Your task to perform on an android device: change timer sound Image 0: 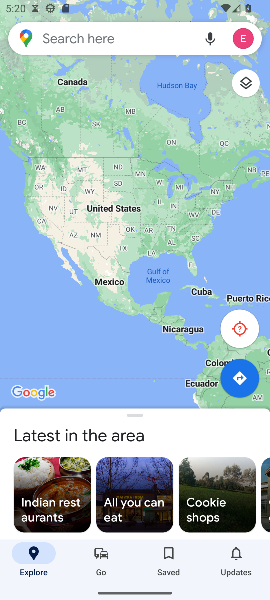
Step 0: press home button
Your task to perform on an android device: change timer sound Image 1: 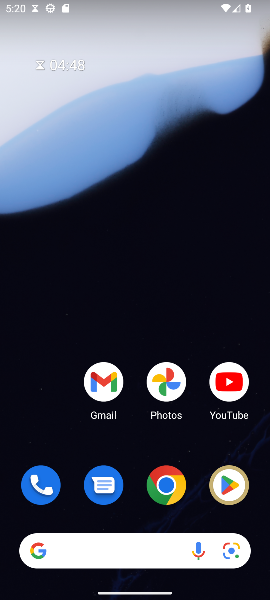
Step 1: drag from (122, 521) to (140, 206)
Your task to perform on an android device: change timer sound Image 2: 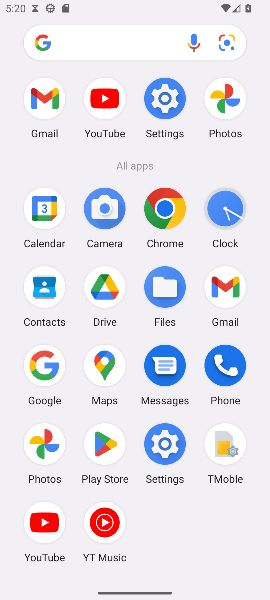
Step 2: click (229, 216)
Your task to perform on an android device: change timer sound Image 3: 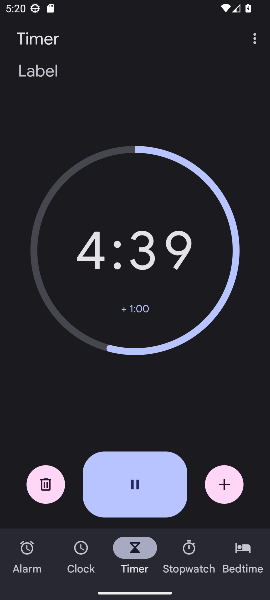
Step 3: click (256, 40)
Your task to perform on an android device: change timer sound Image 4: 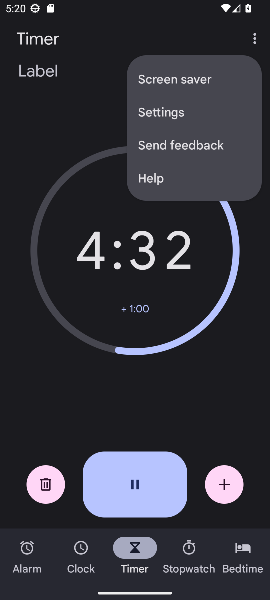
Step 4: click (168, 117)
Your task to perform on an android device: change timer sound Image 5: 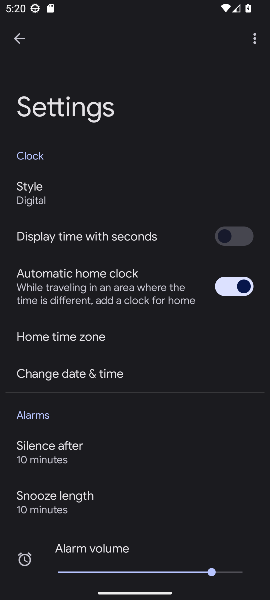
Step 5: drag from (93, 418) to (106, 286)
Your task to perform on an android device: change timer sound Image 6: 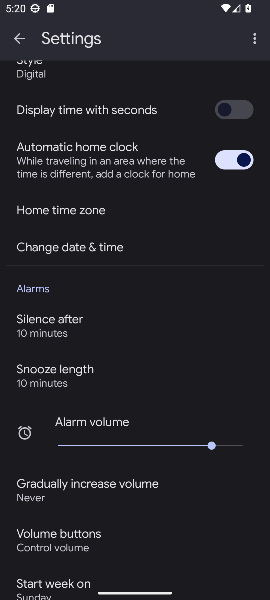
Step 6: drag from (93, 505) to (109, 236)
Your task to perform on an android device: change timer sound Image 7: 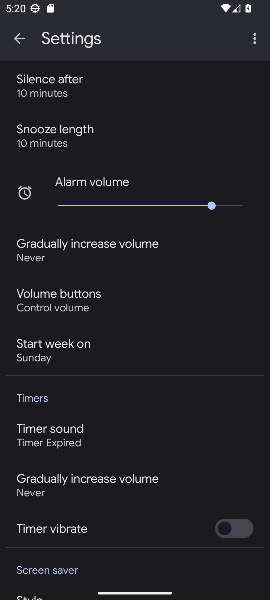
Step 7: click (48, 434)
Your task to perform on an android device: change timer sound Image 8: 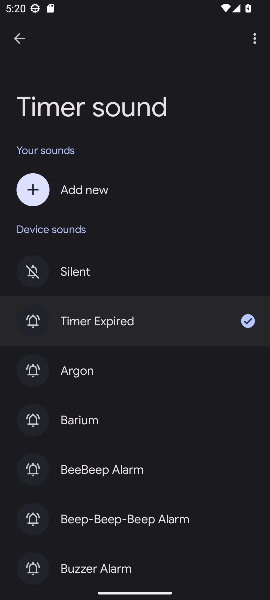
Step 8: click (100, 382)
Your task to perform on an android device: change timer sound Image 9: 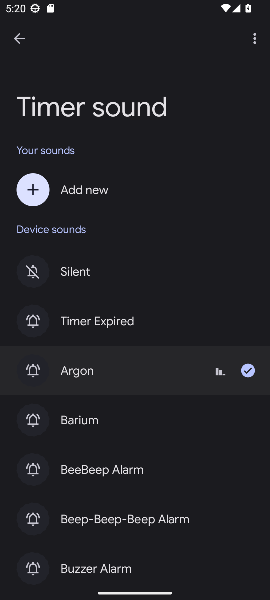
Step 9: task complete